Your task to perform on an android device: When is my next meeting? Image 0: 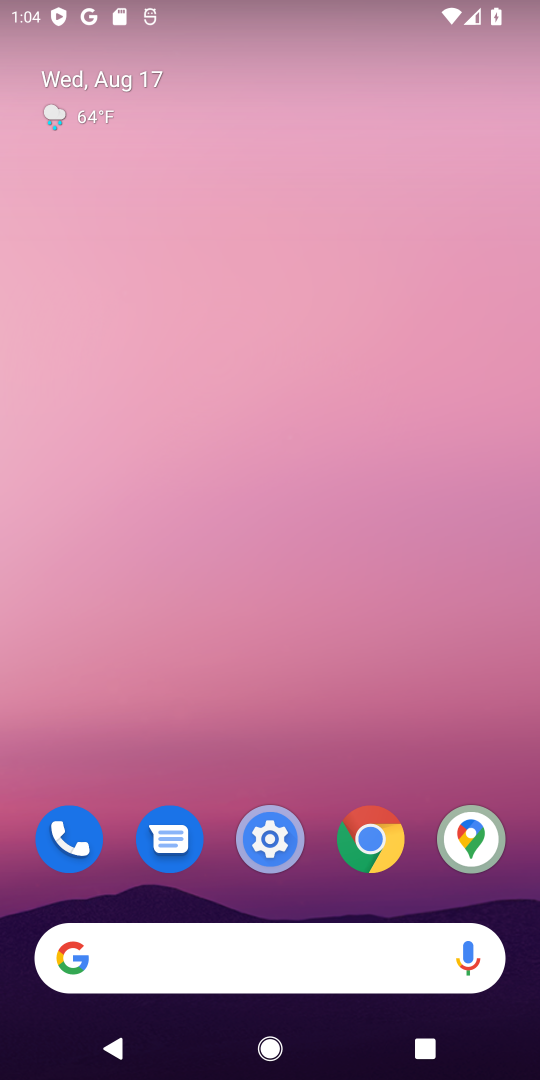
Step 0: drag from (189, 959) to (280, 350)
Your task to perform on an android device: When is my next meeting? Image 1: 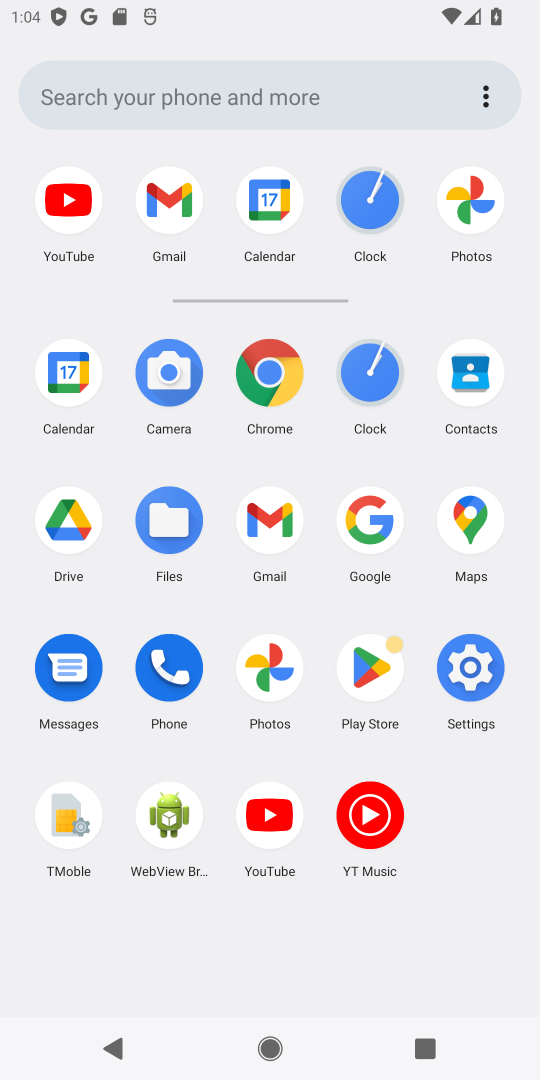
Step 1: click (71, 372)
Your task to perform on an android device: When is my next meeting? Image 2: 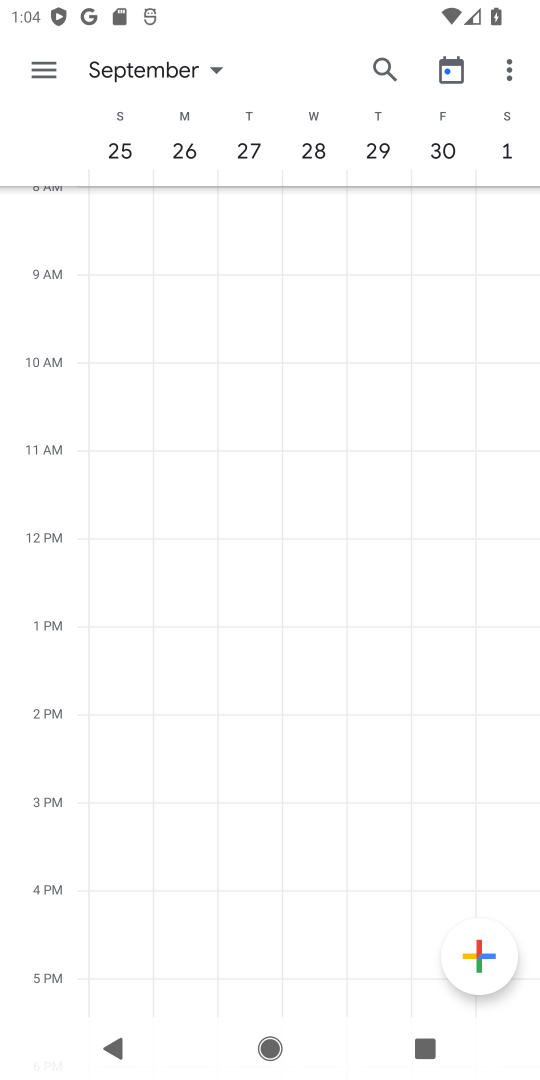
Step 2: click (450, 73)
Your task to perform on an android device: When is my next meeting? Image 3: 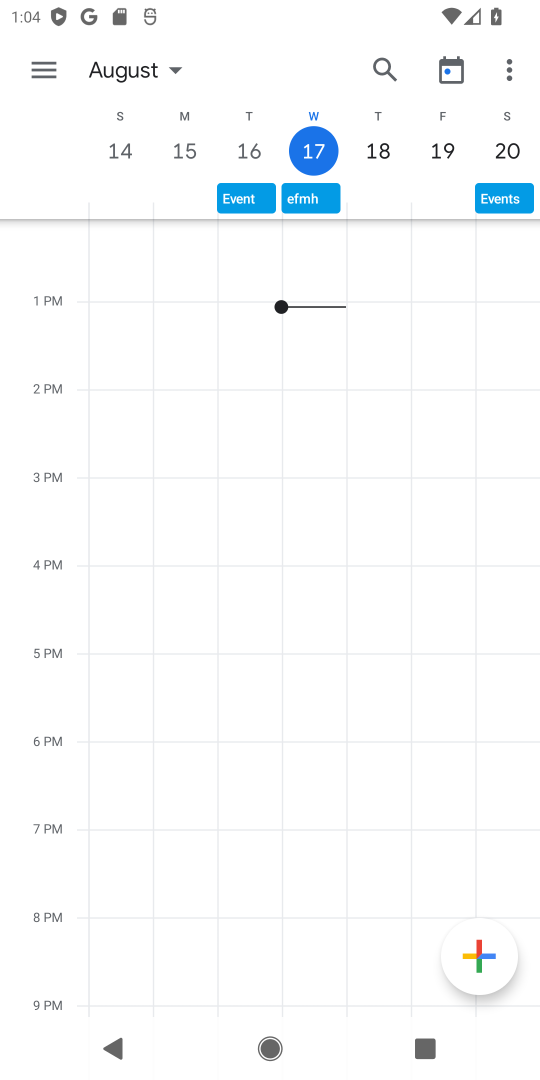
Step 3: click (181, 72)
Your task to perform on an android device: When is my next meeting? Image 4: 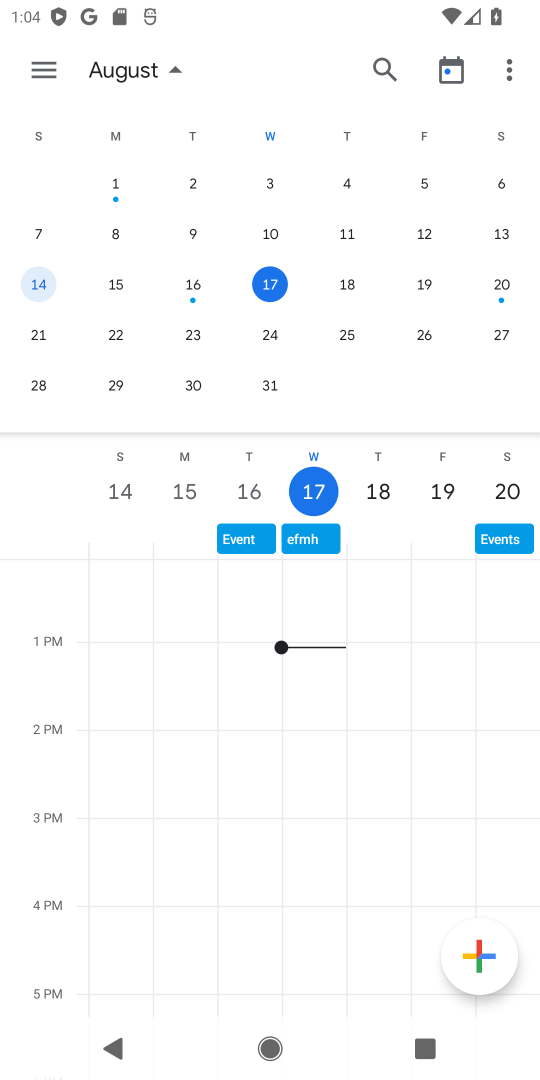
Step 4: click (496, 291)
Your task to perform on an android device: When is my next meeting? Image 5: 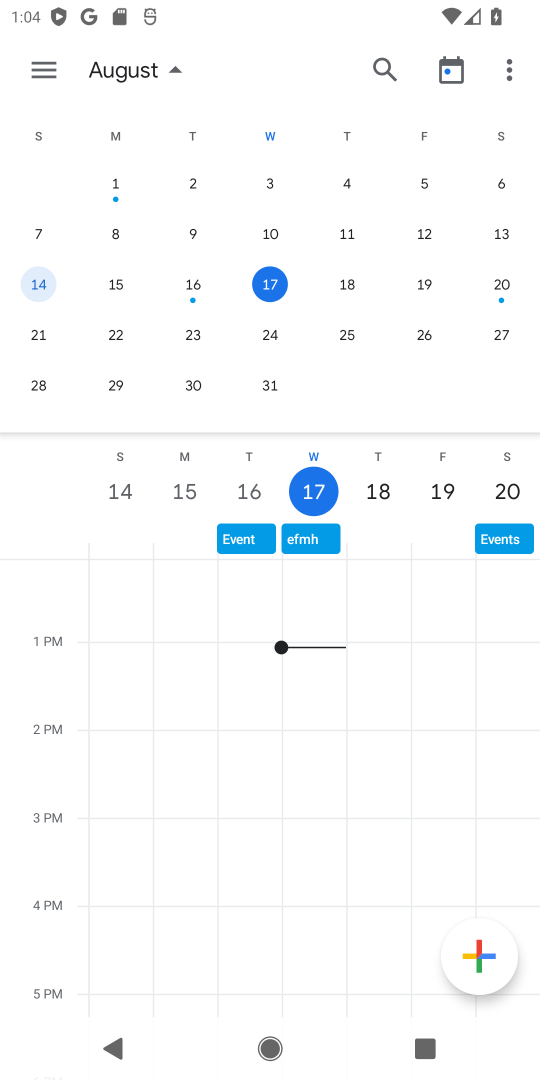
Step 5: click (507, 279)
Your task to perform on an android device: When is my next meeting? Image 6: 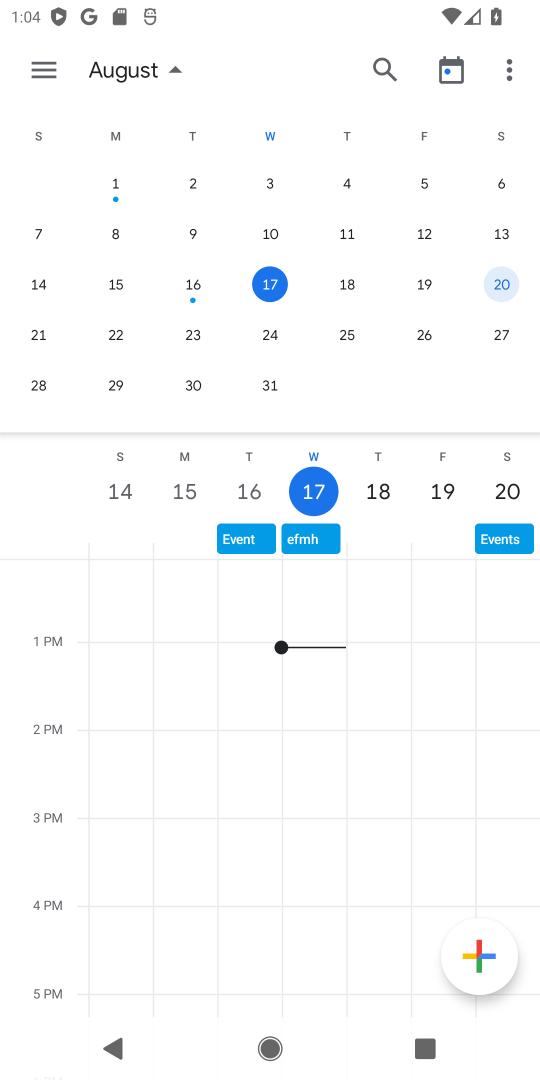
Step 6: click (47, 76)
Your task to perform on an android device: When is my next meeting? Image 7: 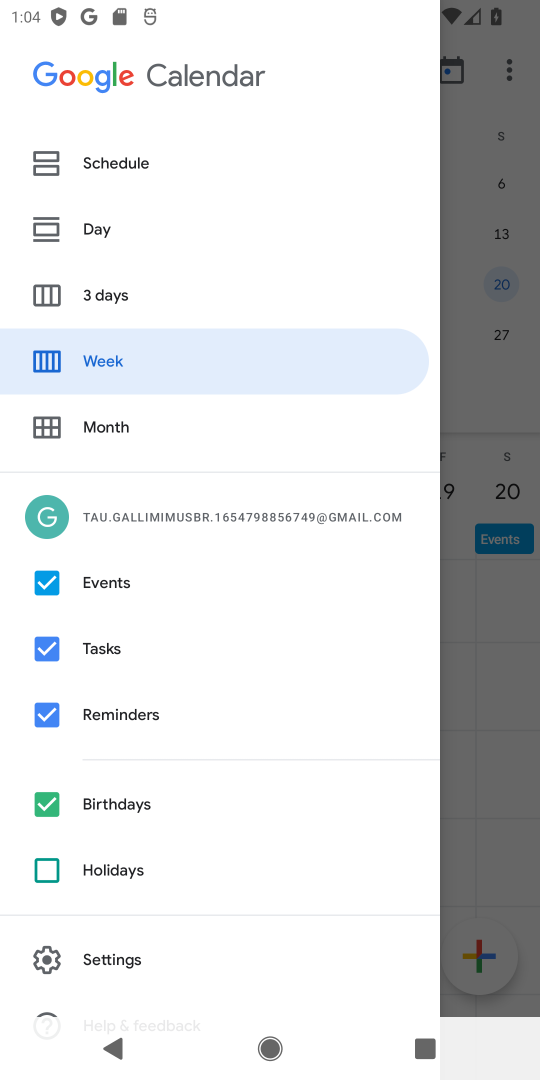
Step 7: click (146, 154)
Your task to perform on an android device: When is my next meeting? Image 8: 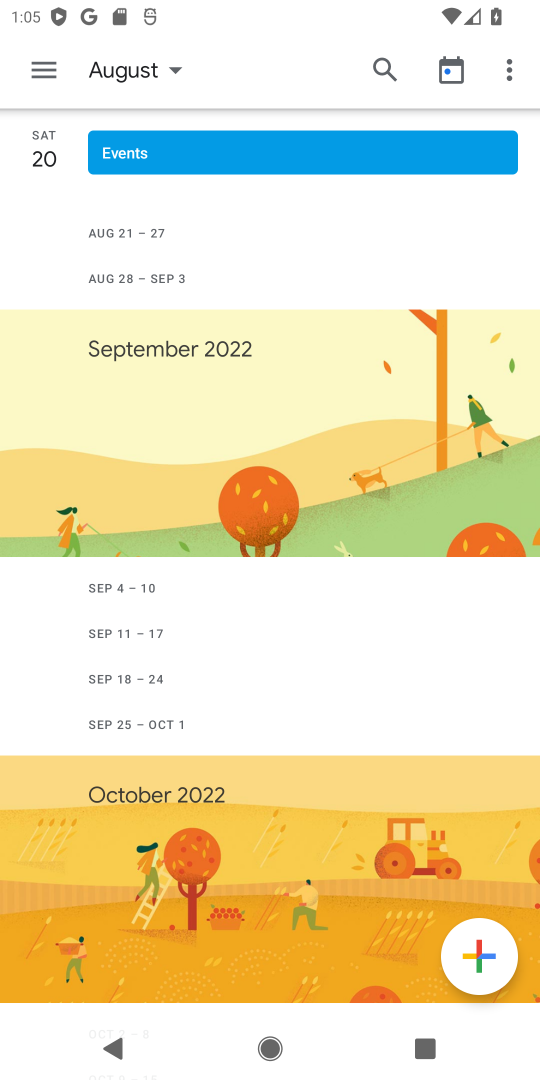
Step 8: task complete